Your task to perform on an android device: turn on showing notifications on the lock screen Image 0: 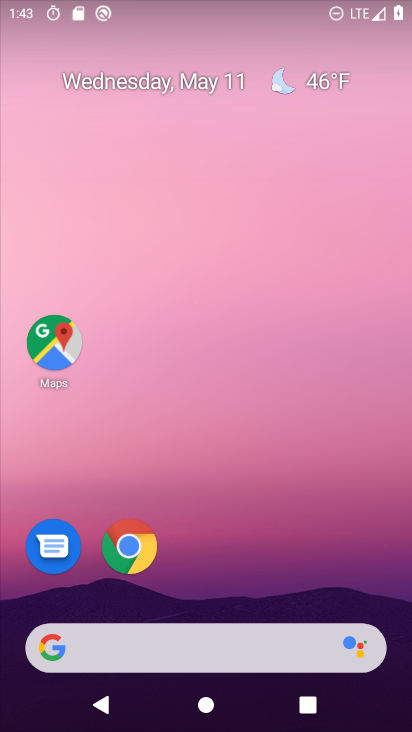
Step 0: drag from (269, 670) to (254, 50)
Your task to perform on an android device: turn on showing notifications on the lock screen Image 1: 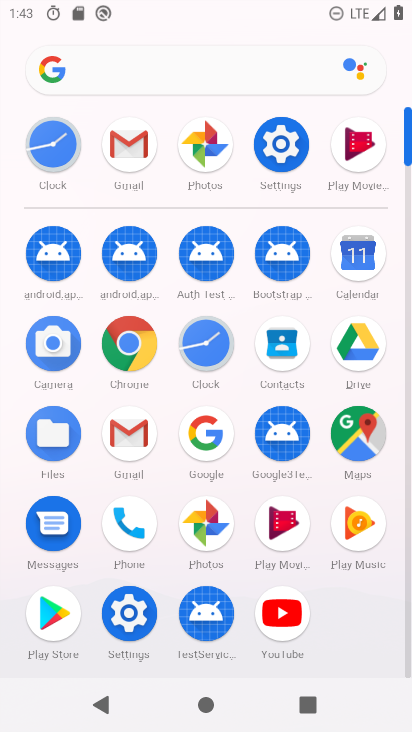
Step 1: click (139, 610)
Your task to perform on an android device: turn on showing notifications on the lock screen Image 2: 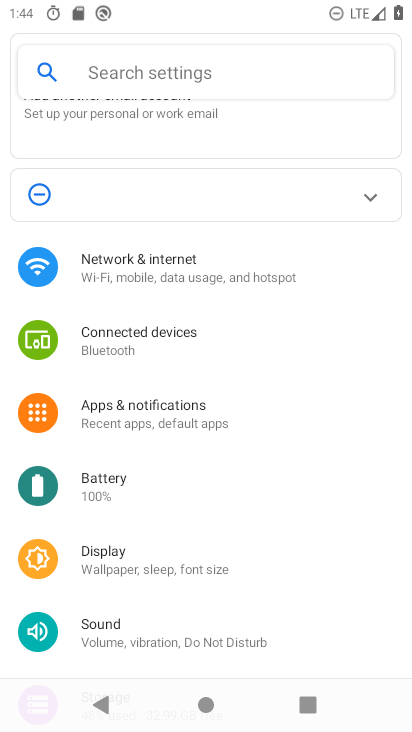
Step 2: click (136, 78)
Your task to perform on an android device: turn on showing notifications on the lock screen Image 3: 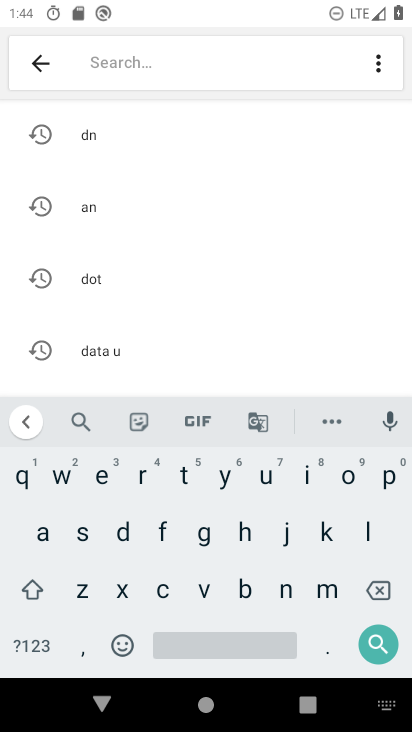
Step 3: click (285, 593)
Your task to perform on an android device: turn on showing notifications on the lock screen Image 4: 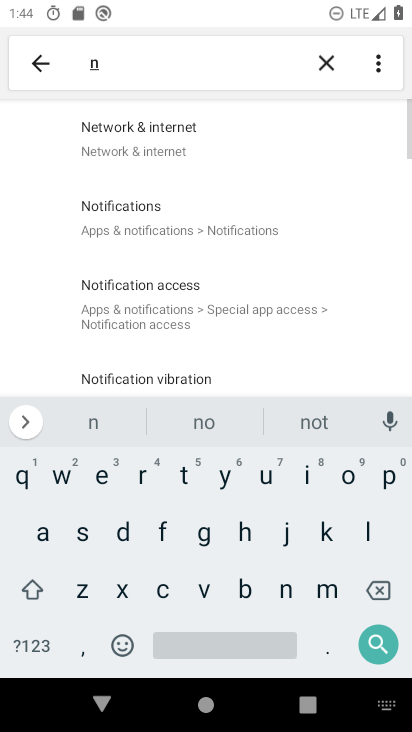
Step 4: click (350, 479)
Your task to perform on an android device: turn on showing notifications on the lock screen Image 5: 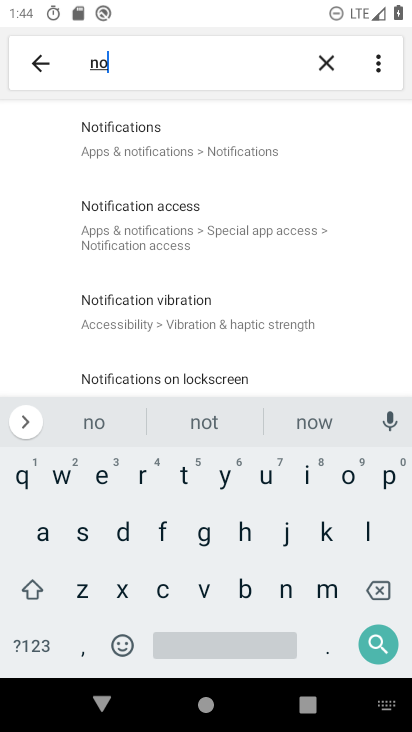
Step 5: click (144, 157)
Your task to perform on an android device: turn on showing notifications on the lock screen Image 6: 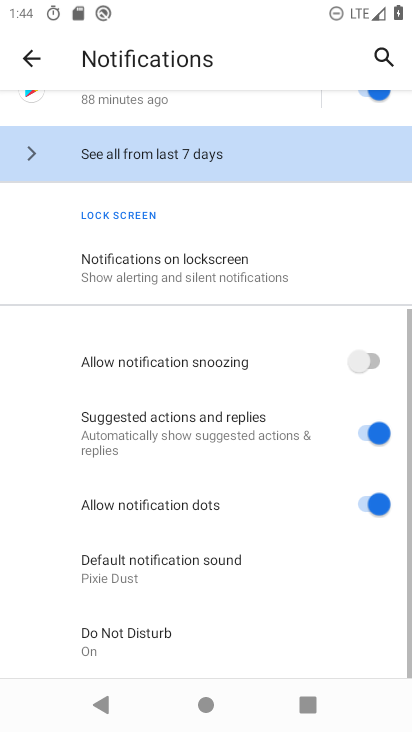
Step 6: click (166, 274)
Your task to perform on an android device: turn on showing notifications on the lock screen Image 7: 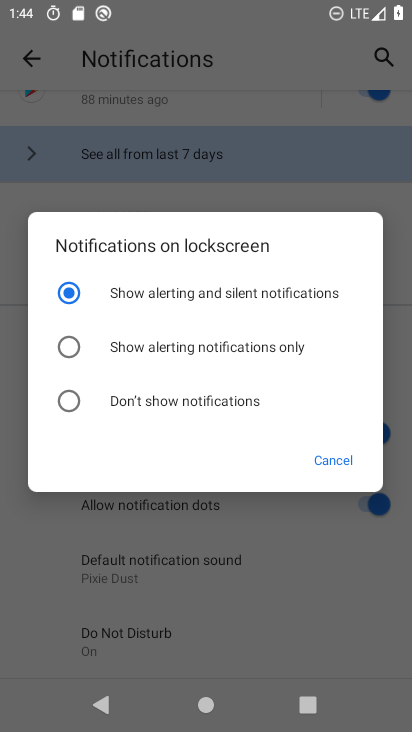
Step 7: task complete